Your task to perform on an android device: What does the iPhone 8 look like? Image 0: 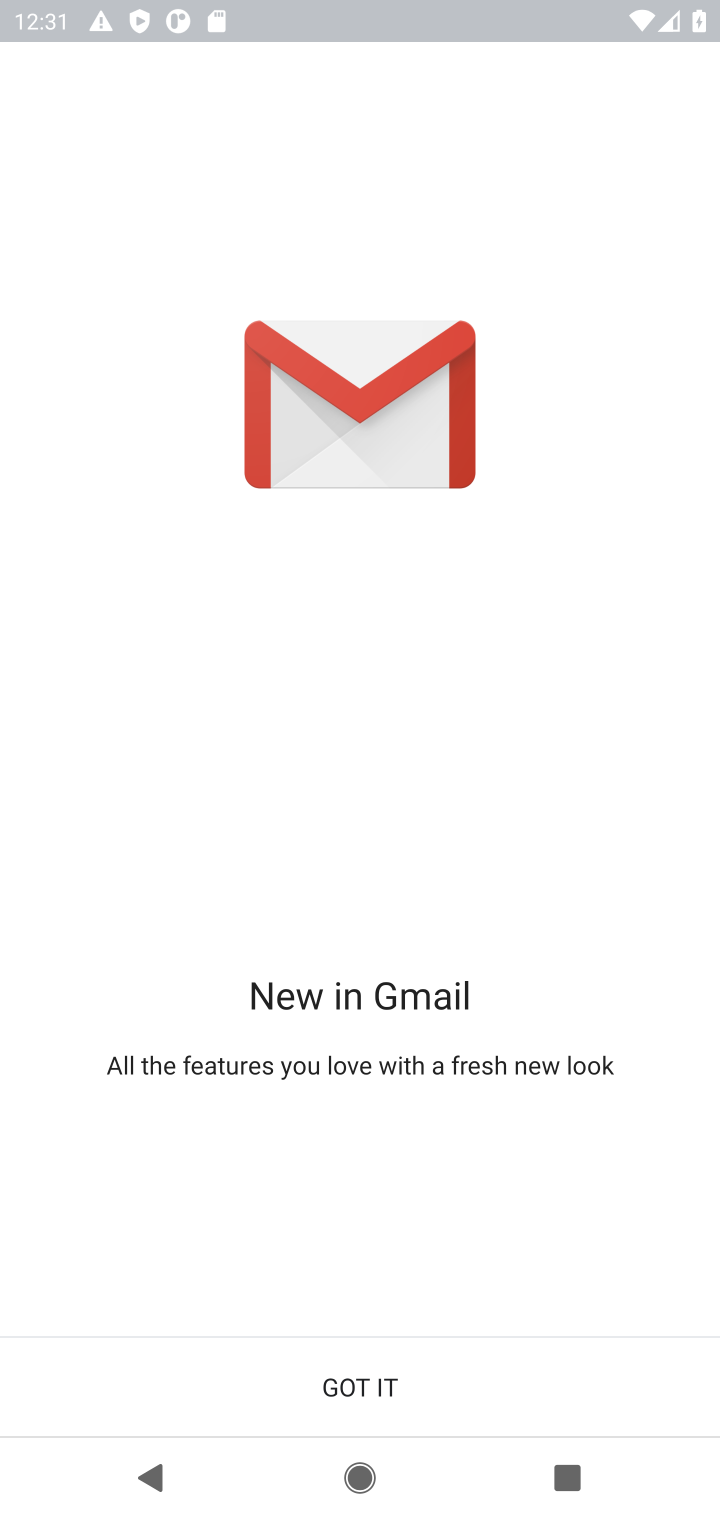
Step 0: press home button
Your task to perform on an android device: What does the iPhone 8 look like? Image 1: 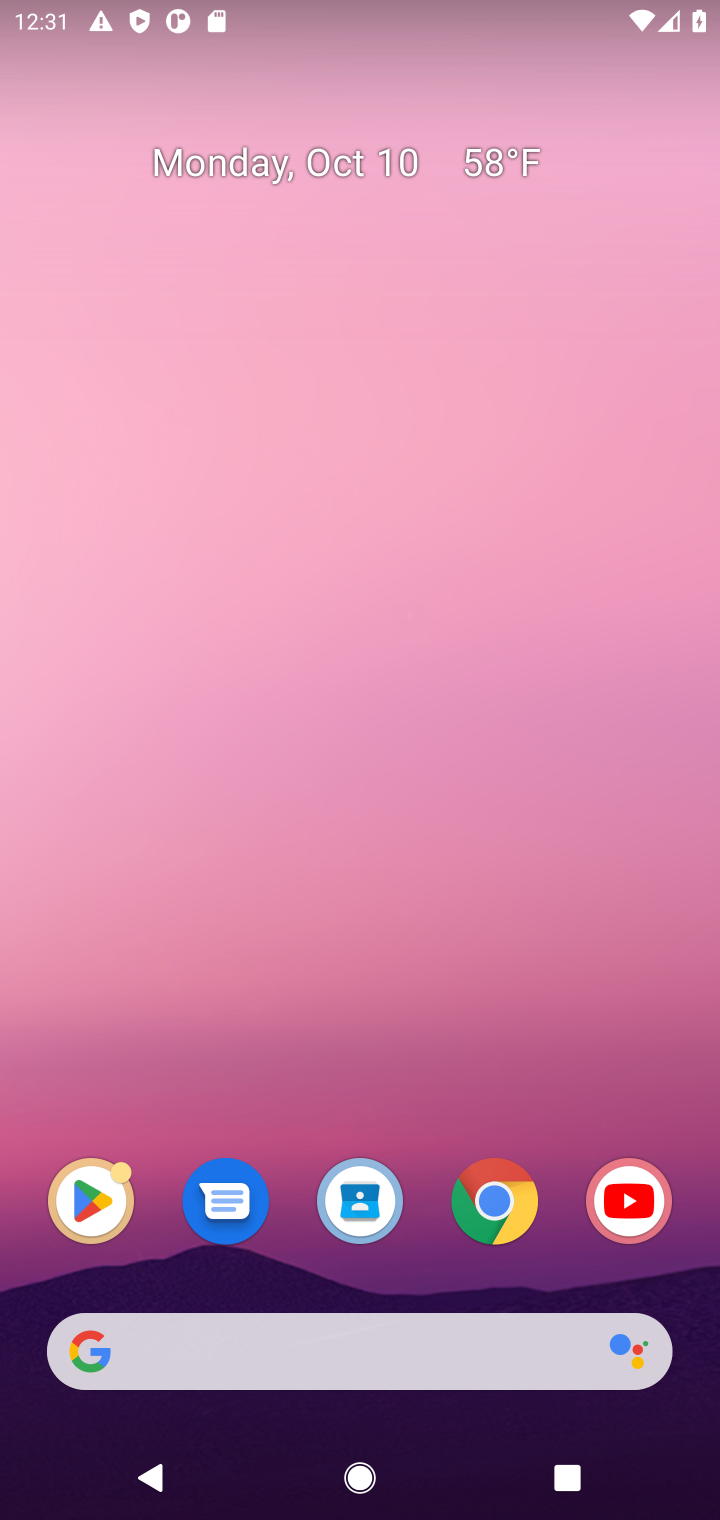
Step 1: press home button
Your task to perform on an android device: What does the iPhone 8 look like? Image 2: 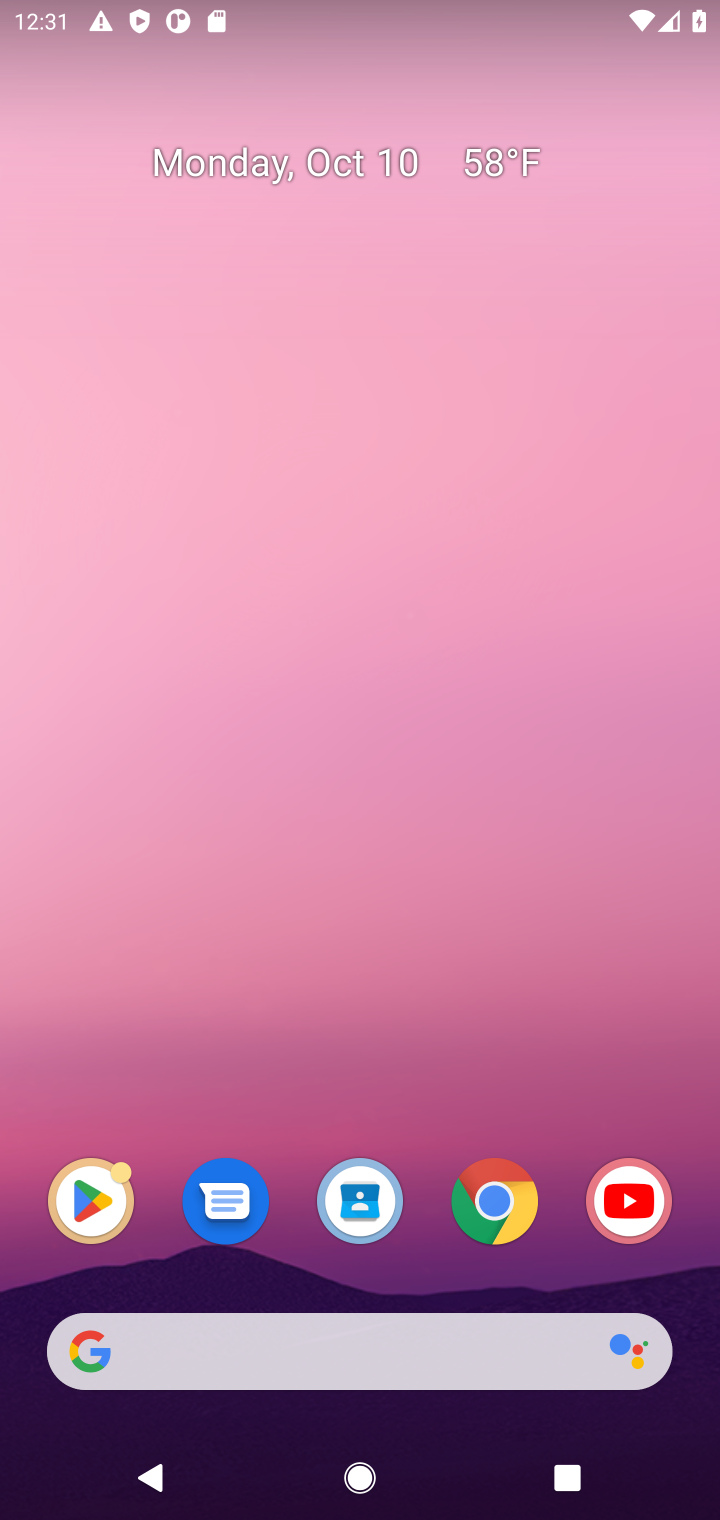
Step 2: click (503, 1211)
Your task to perform on an android device: What does the iPhone 8 look like? Image 3: 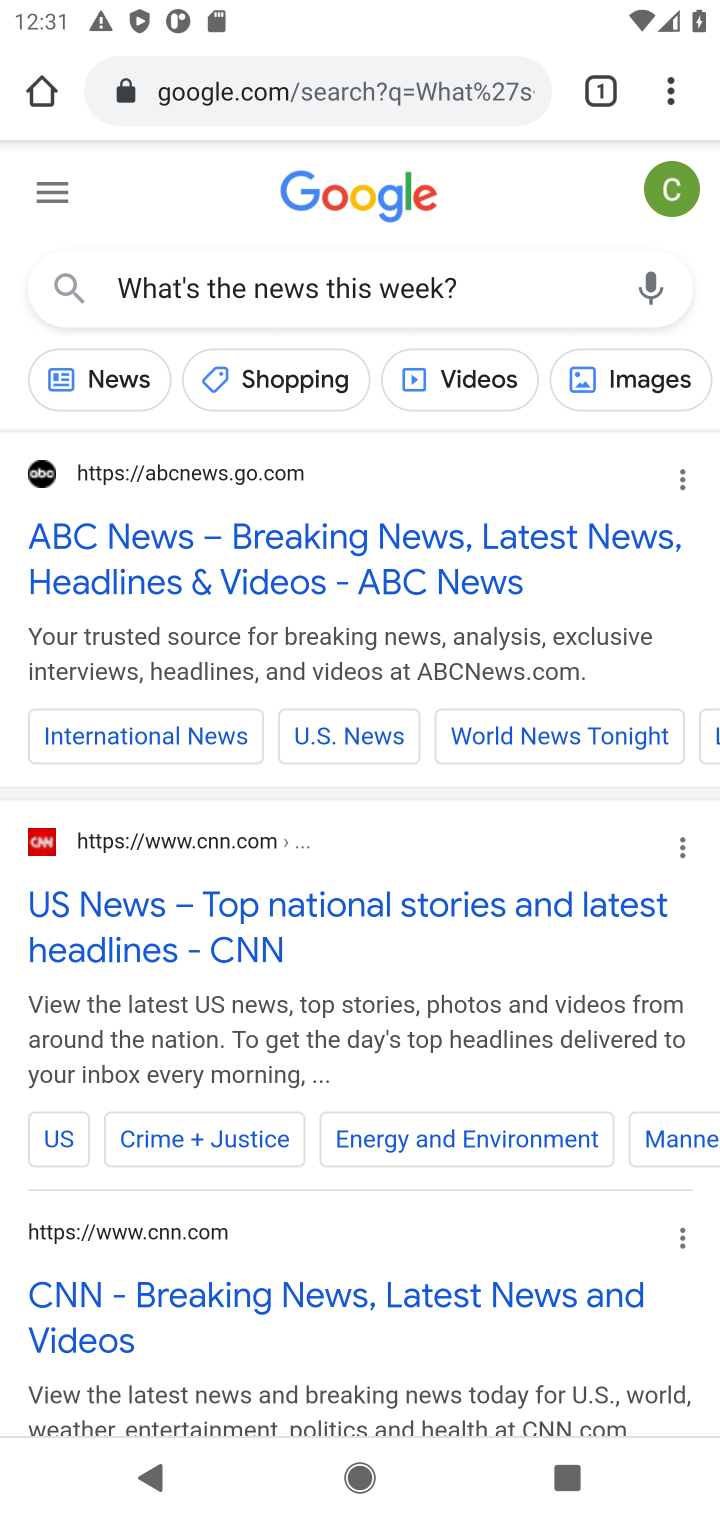
Step 3: click (468, 95)
Your task to perform on an android device: What does the iPhone 8 look like? Image 4: 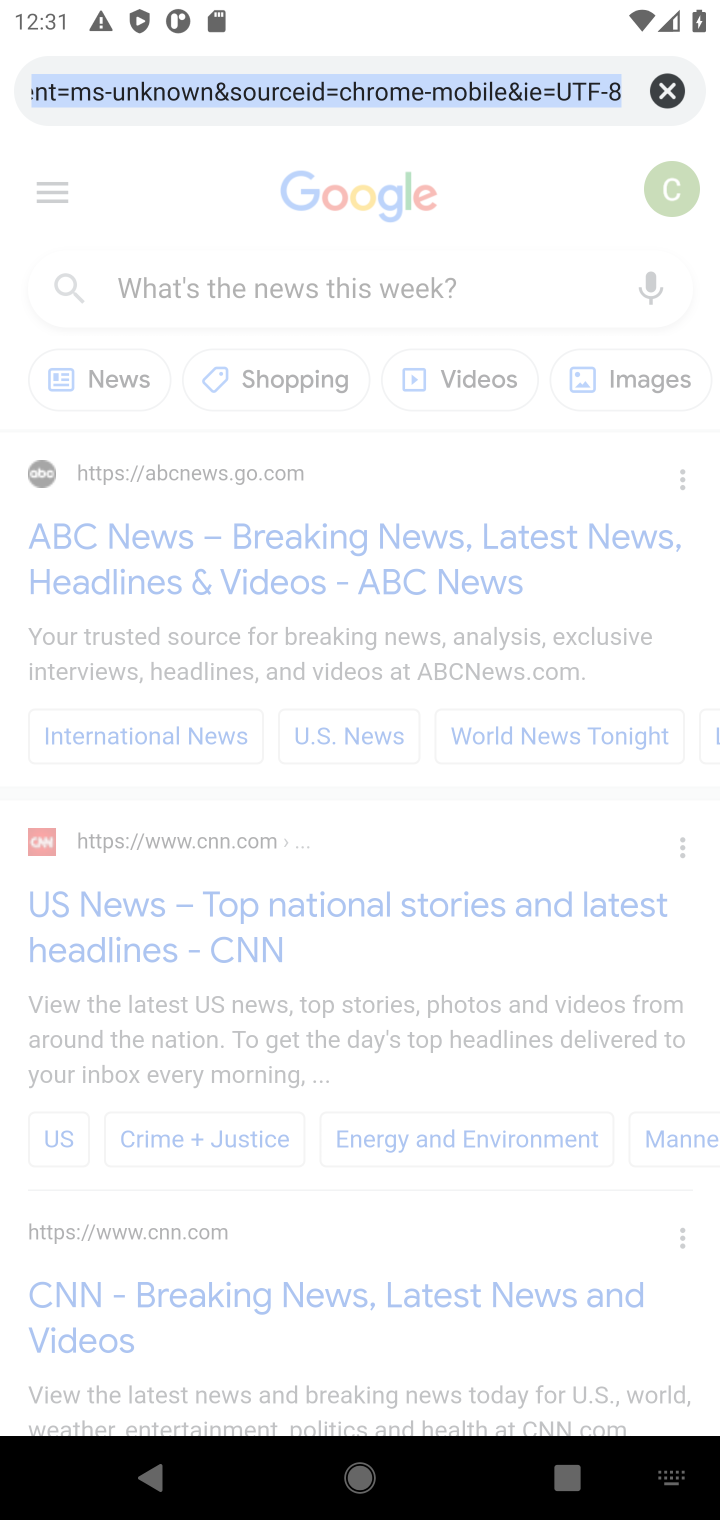
Step 4: type "What does the iPhone 8 look like?"
Your task to perform on an android device: What does the iPhone 8 look like? Image 5: 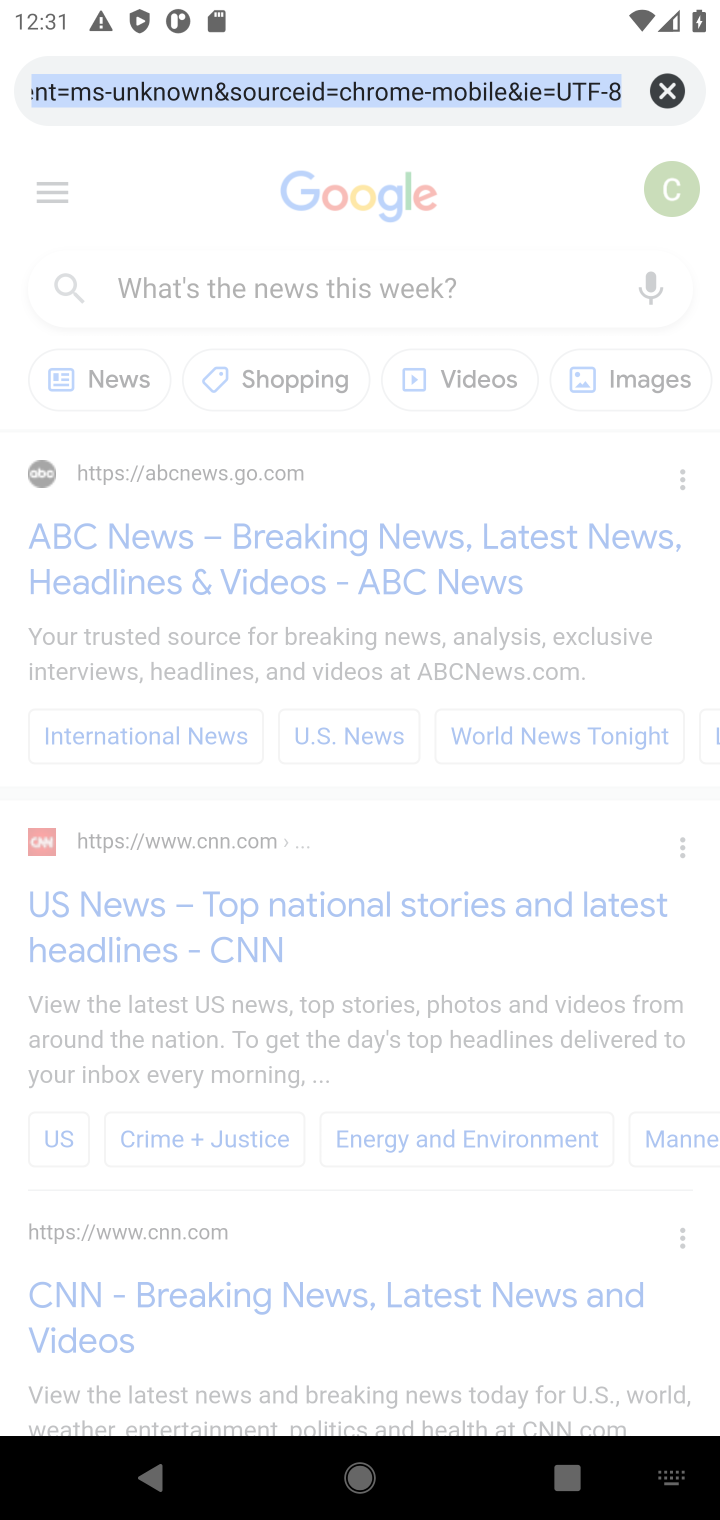
Step 5: click (427, 106)
Your task to perform on an android device: What does the iPhone 8 look like? Image 6: 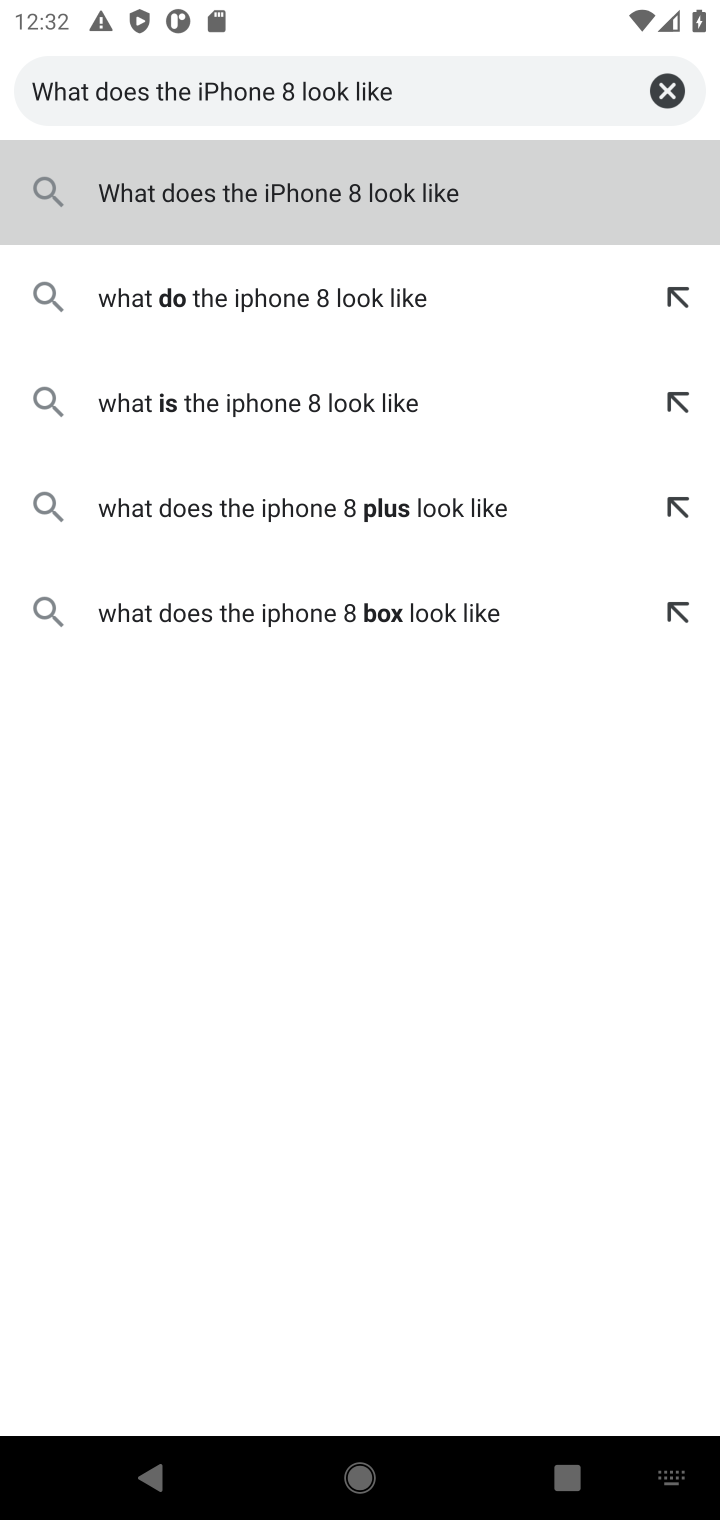
Step 6: click (406, 207)
Your task to perform on an android device: What does the iPhone 8 look like? Image 7: 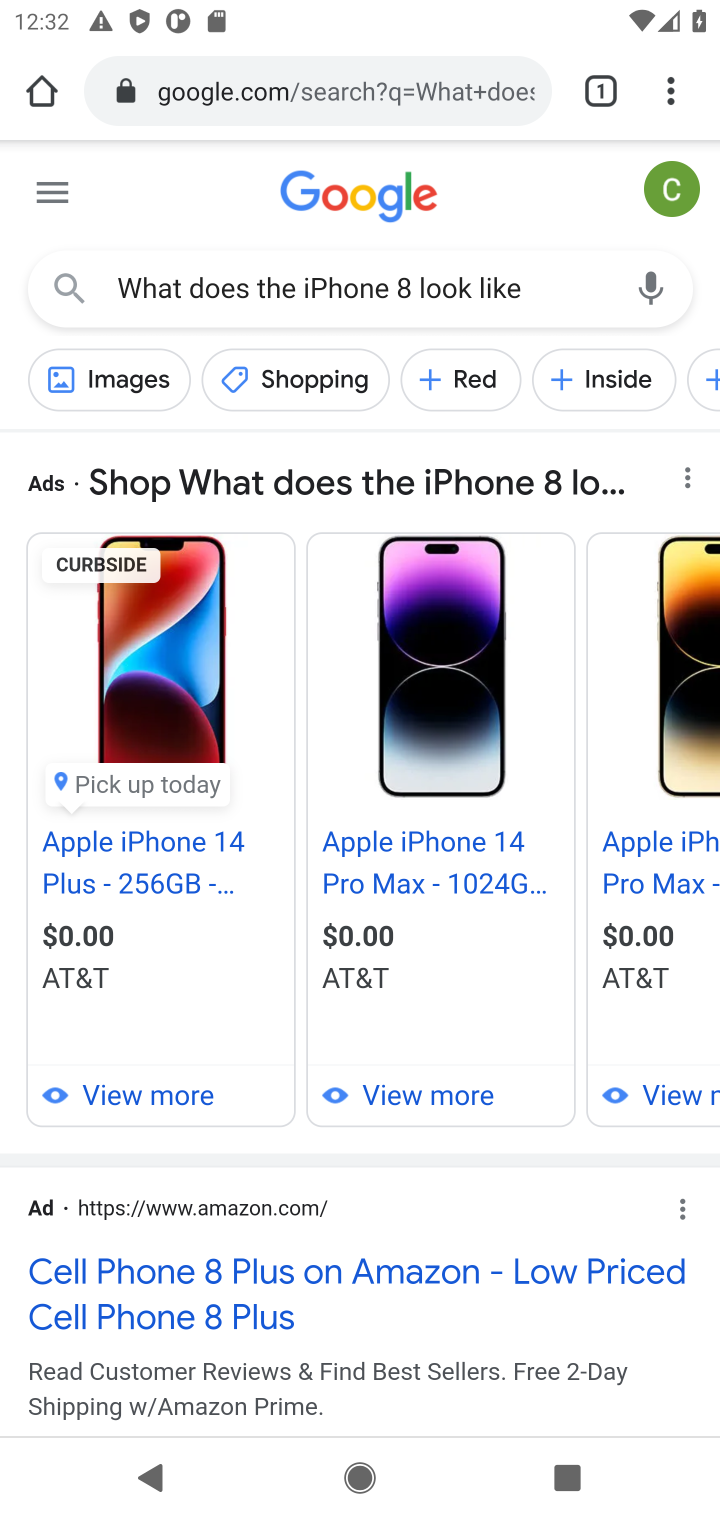
Step 7: task complete